Your task to perform on an android device: empty trash in google photos Image 0: 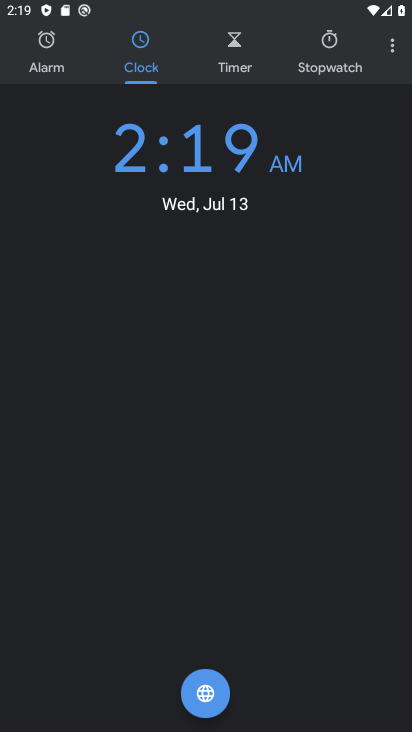
Step 0: press home button
Your task to perform on an android device: empty trash in google photos Image 1: 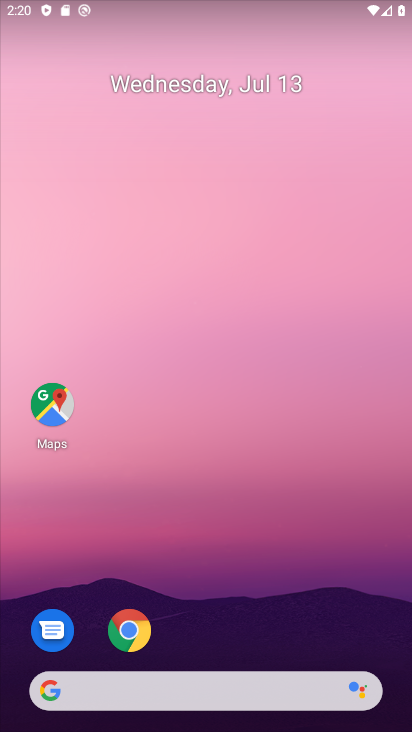
Step 1: drag from (227, 642) to (201, 58)
Your task to perform on an android device: empty trash in google photos Image 2: 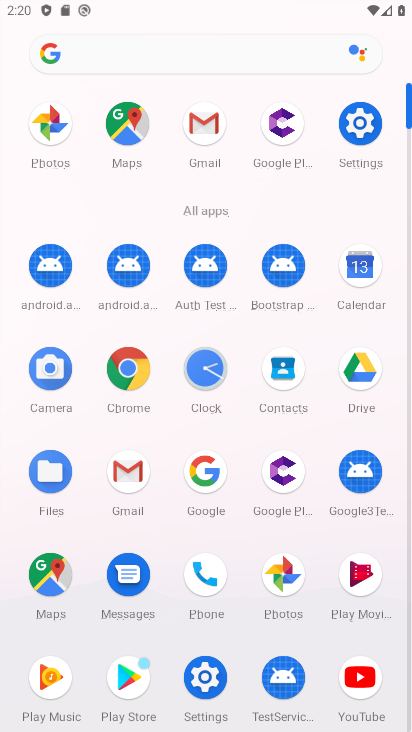
Step 2: click (51, 130)
Your task to perform on an android device: empty trash in google photos Image 3: 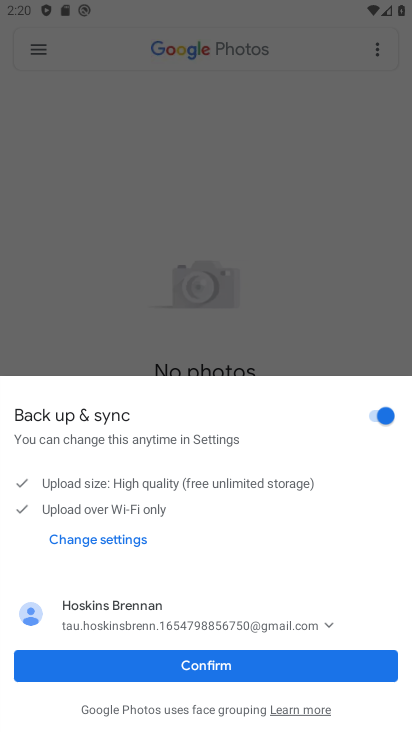
Step 3: click (269, 669)
Your task to perform on an android device: empty trash in google photos Image 4: 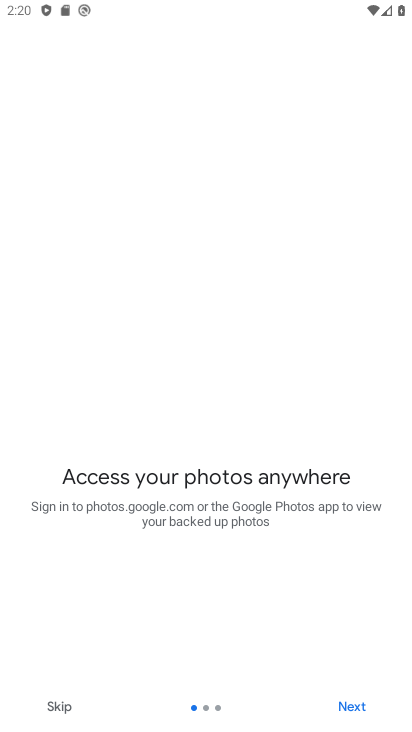
Step 4: click (59, 709)
Your task to perform on an android device: empty trash in google photos Image 5: 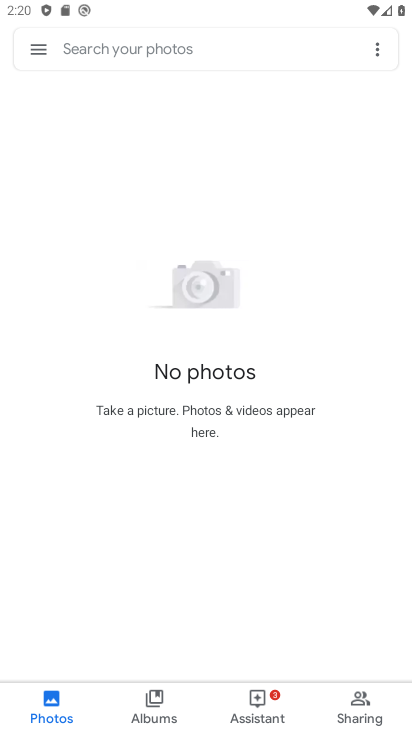
Step 5: click (39, 54)
Your task to perform on an android device: empty trash in google photos Image 6: 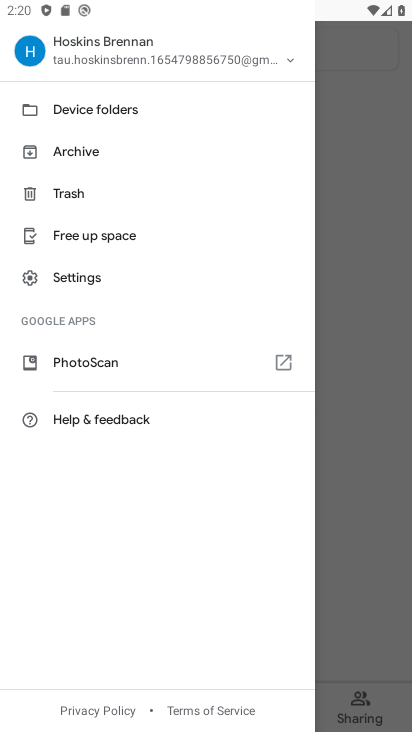
Step 6: click (81, 197)
Your task to perform on an android device: empty trash in google photos Image 7: 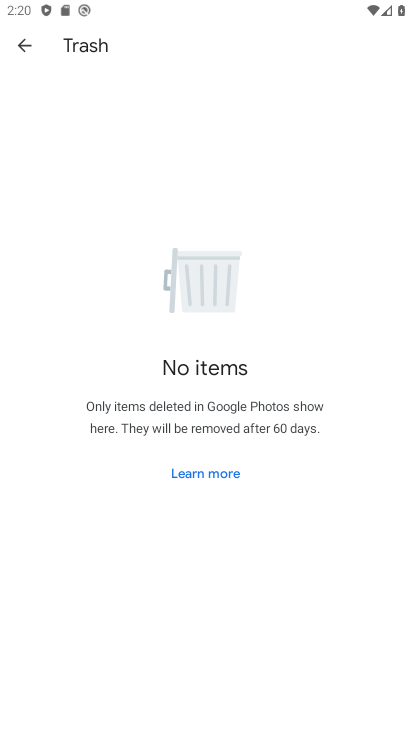
Step 7: task complete